Your task to perform on an android device: Search for seafood restaurants on Google Maps Image 0: 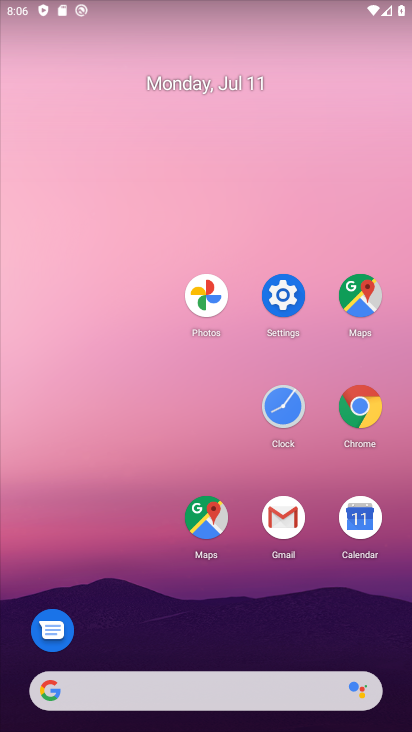
Step 0: click (215, 531)
Your task to perform on an android device: Search for seafood restaurants on Google Maps Image 1: 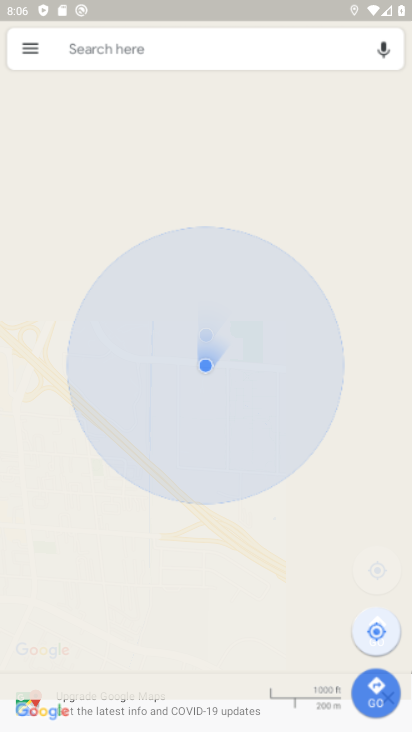
Step 1: click (232, 45)
Your task to perform on an android device: Search for seafood restaurants on Google Maps Image 2: 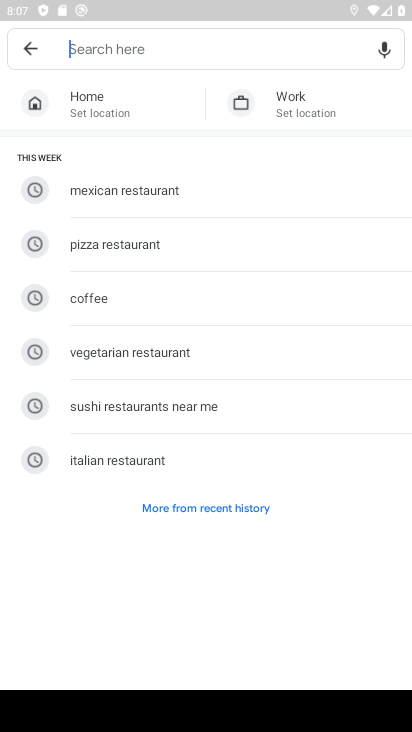
Step 2: type "seafood restaurants"
Your task to perform on an android device: Search for seafood restaurants on Google Maps Image 3: 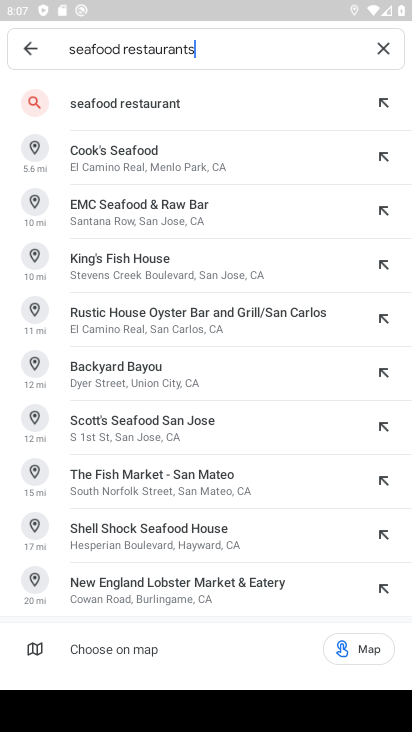
Step 3: click (148, 100)
Your task to perform on an android device: Search for seafood restaurants on Google Maps Image 4: 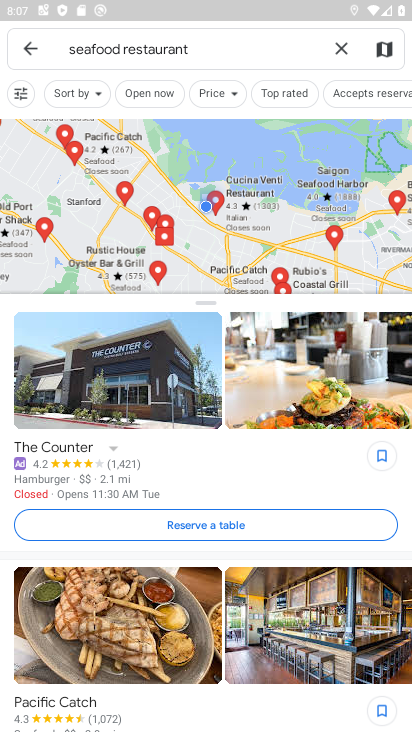
Step 4: task complete